Your task to perform on an android device: Search for Mexican restaurants on Maps Image 0: 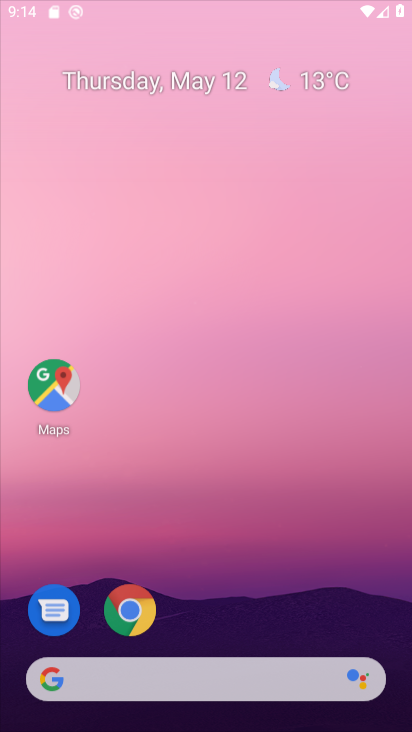
Step 0: click (176, 685)
Your task to perform on an android device: Search for Mexican restaurants on Maps Image 1: 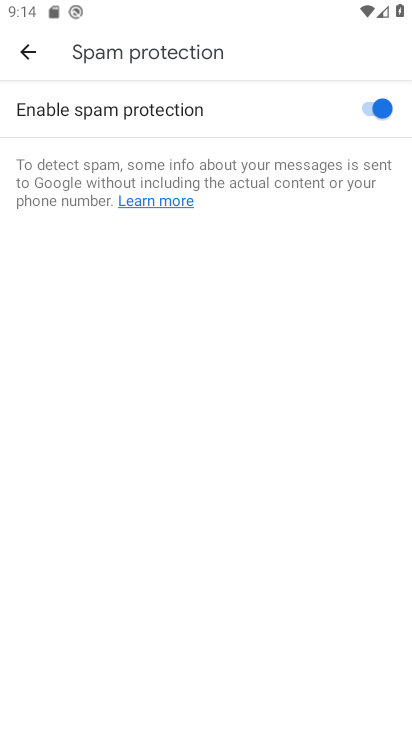
Step 1: press home button
Your task to perform on an android device: Search for Mexican restaurants on Maps Image 2: 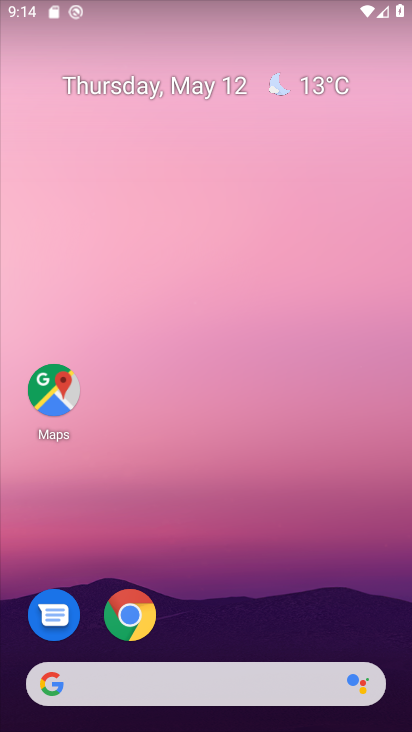
Step 2: click (62, 396)
Your task to perform on an android device: Search for Mexican restaurants on Maps Image 3: 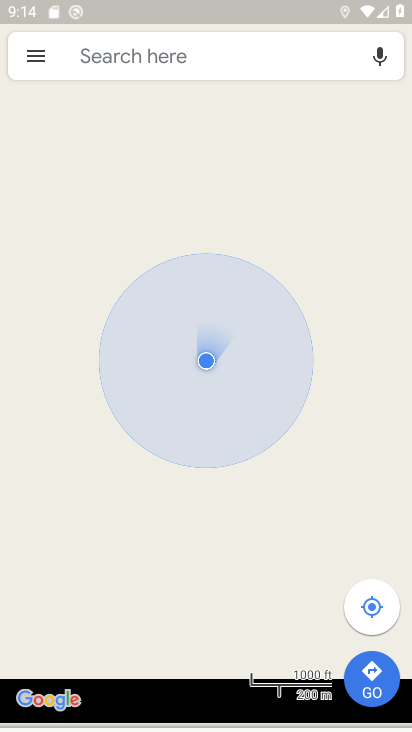
Step 3: click (113, 62)
Your task to perform on an android device: Search for Mexican restaurants on Maps Image 4: 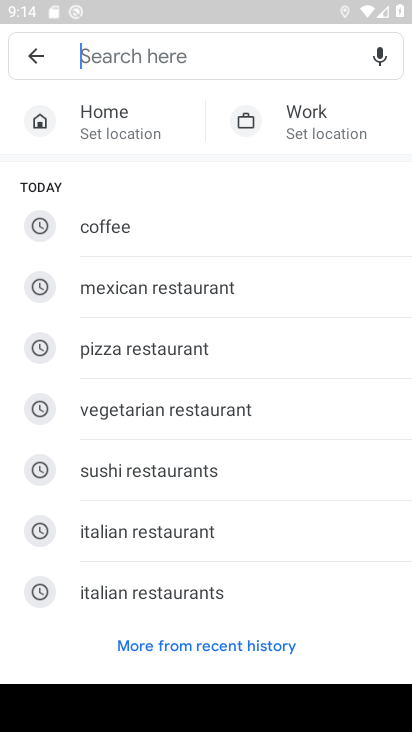
Step 4: click (137, 294)
Your task to perform on an android device: Search for Mexican restaurants on Maps Image 5: 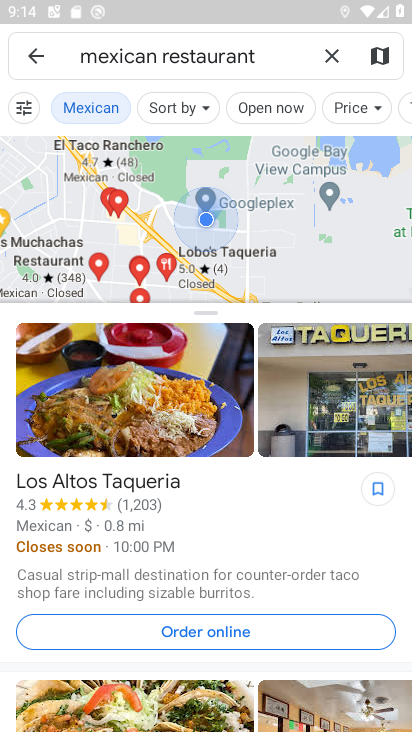
Step 5: task complete